Your task to perform on an android device: Check the weather Image 0: 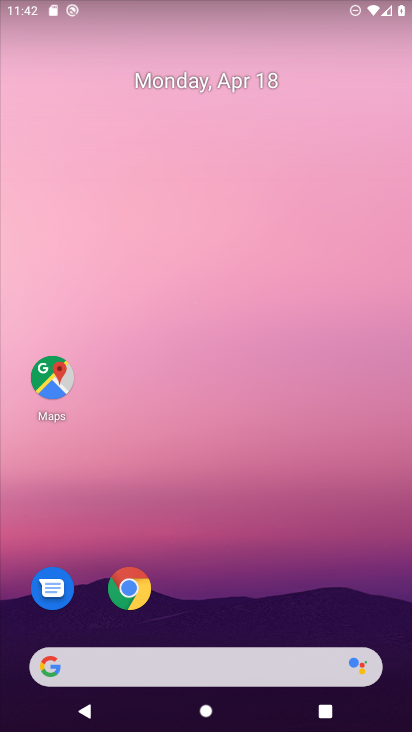
Step 0: drag from (251, 456) to (92, 33)
Your task to perform on an android device: Check the weather Image 1: 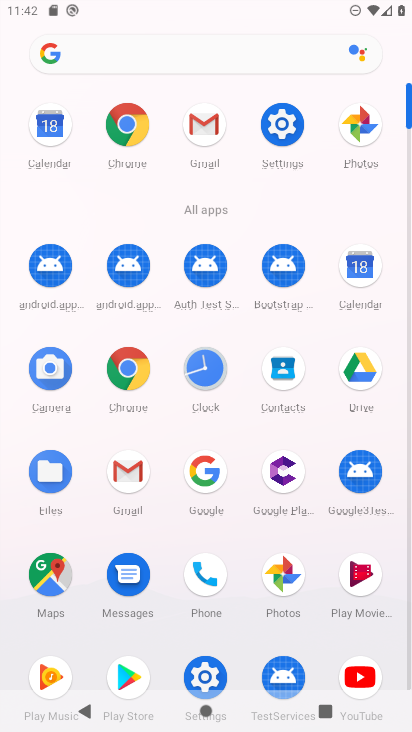
Step 1: click (281, 125)
Your task to perform on an android device: Check the weather Image 2: 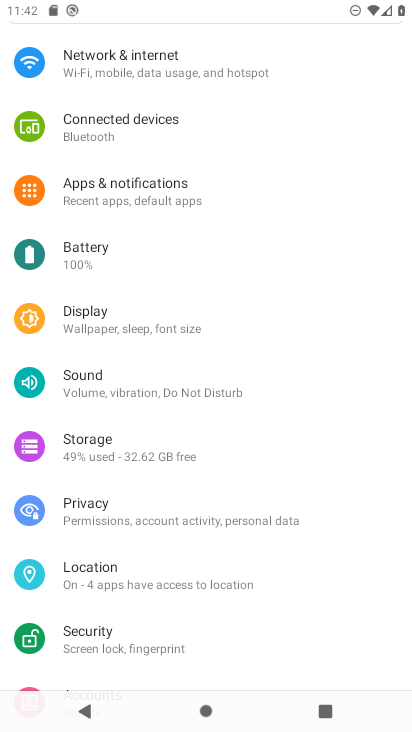
Step 2: drag from (266, 96) to (279, 414)
Your task to perform on an android device: Check the weather Image 3: 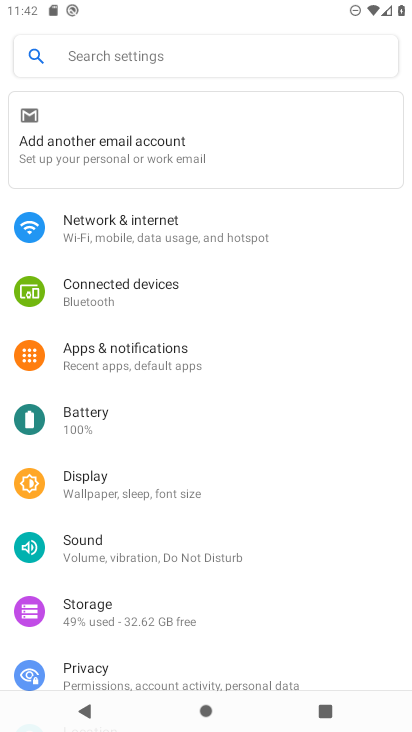
Step 3: drag from (279, 414) to (260, 164)
Your task to perform on an android device: Check the weather Image 4: 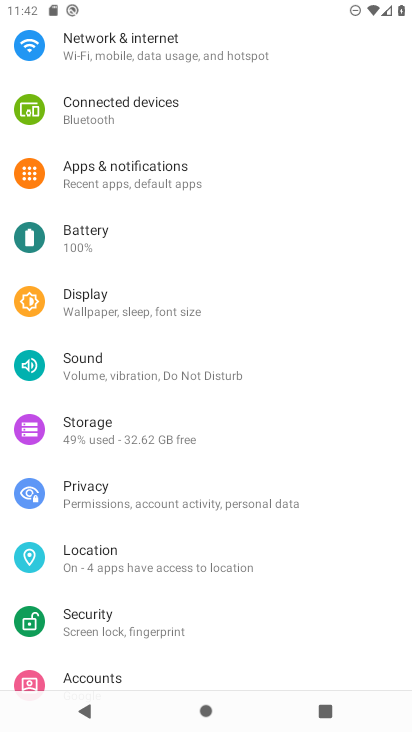
Step 4: drag from (260, 164) to (257, 381)
Your task to perform on an android device: Check the weather Image 5: 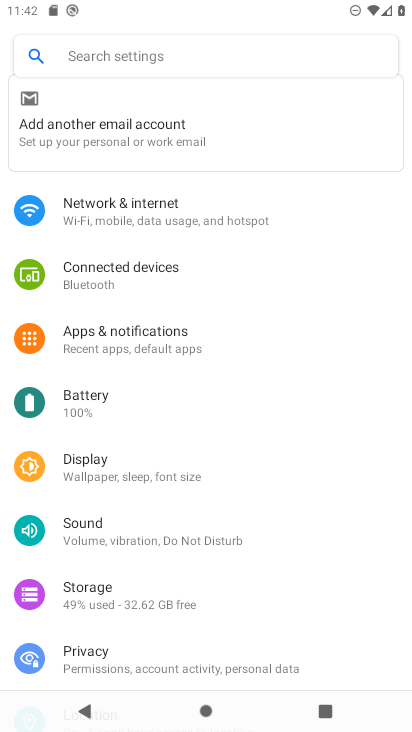
Step 5: press back button
Your task to perform on an android device: Check the weather Image 6: 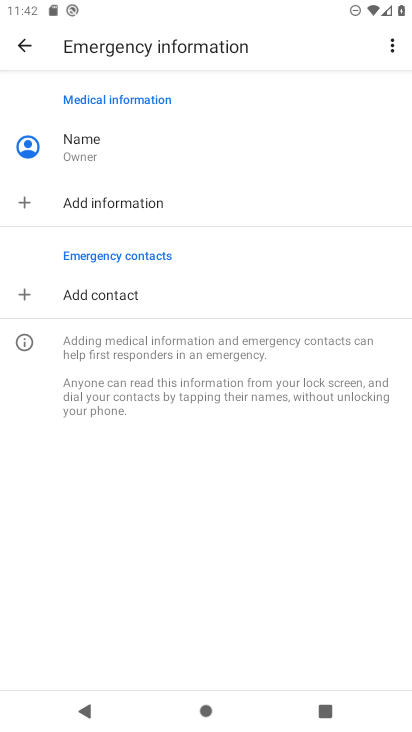
Step 6: press back button
Your task to perform on an android device: Check the weather Image 7: 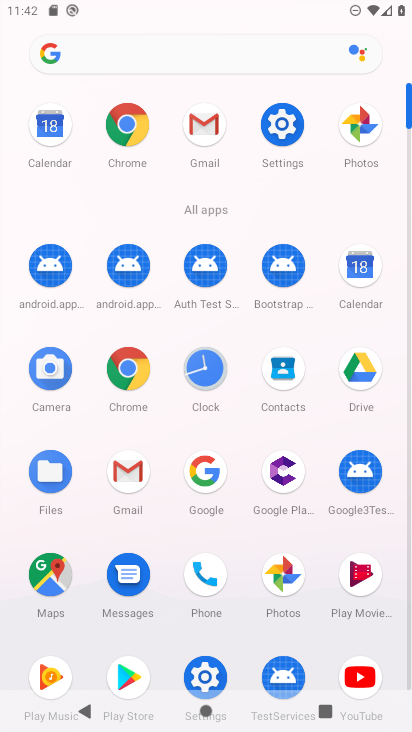
Step 7: click (210, 453)
Your task to perform on an android device: Check the weather Image 8: 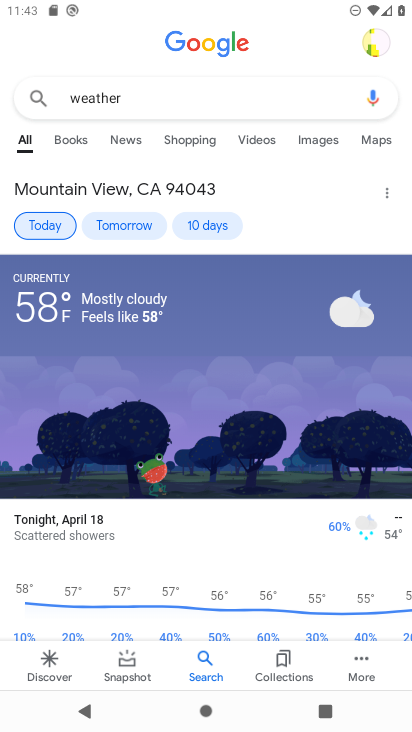
Step 8: task complete